Your task to perform on an android device: Show me popular videos on Youtube Image 0: 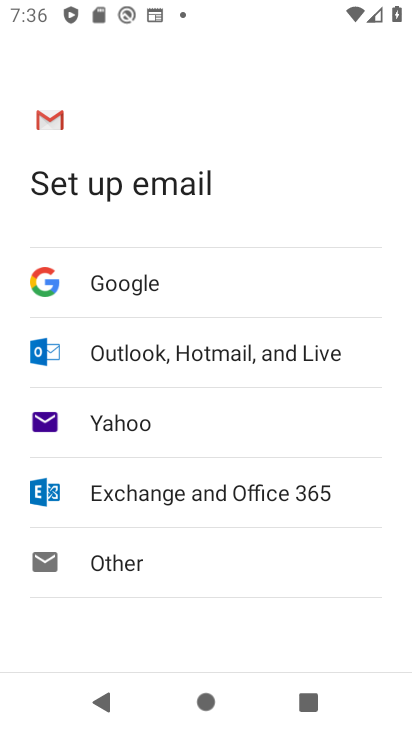
Step 0: press home button
Your task to perform on an android device: Show me popular videos on Youtube Image 1: 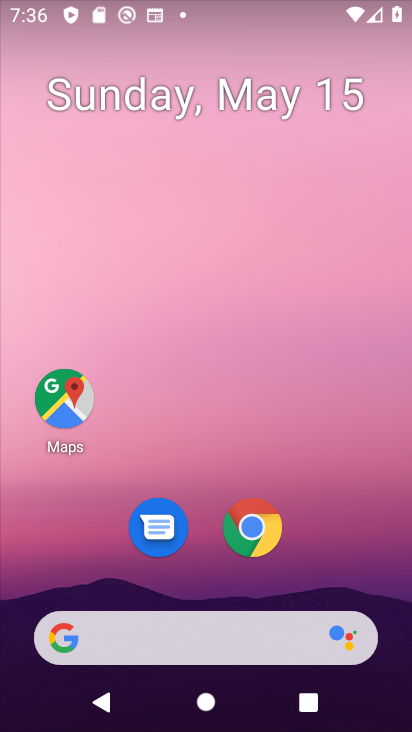
Step 1: drag from (180, 645) to (309, 124)
Your task to perform on an android device: Show me popular videos on Youtube Image 2: 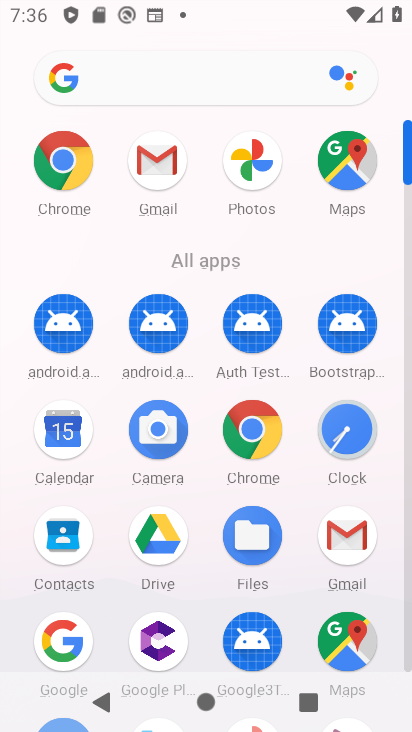
Step 2: drag from (301, 641) to (400, 133)
Your task to perform on an android device: Show me popular videos on Youtube Image 3: 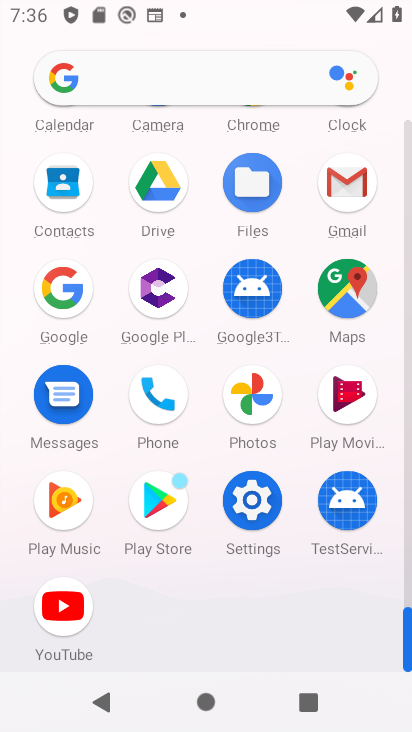
Step 3: click (70, 608)
Your task to perform on an android device: Show me popular videos on Youtube Image 4: 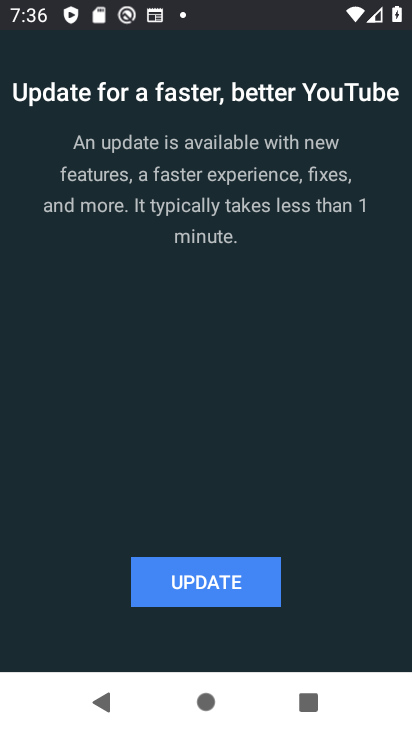
Step 4: click (172, 589)
Your task to perform on an android device: Show me popular videos on Youtube Image 5: 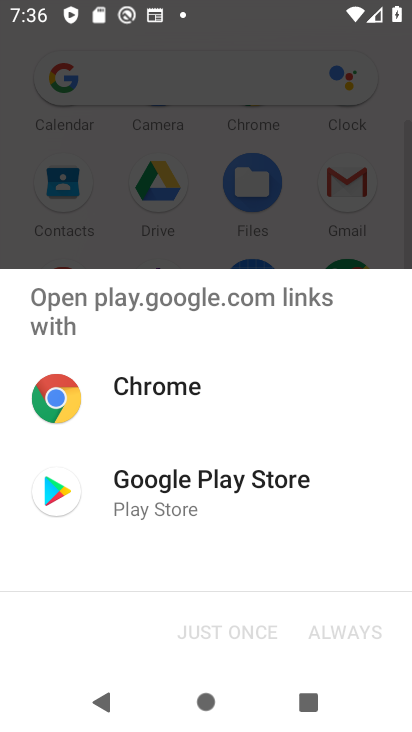
Step 5: click (152, 496)
Your task to perform on an android device: Show me popular videos on Youtube Image 6: 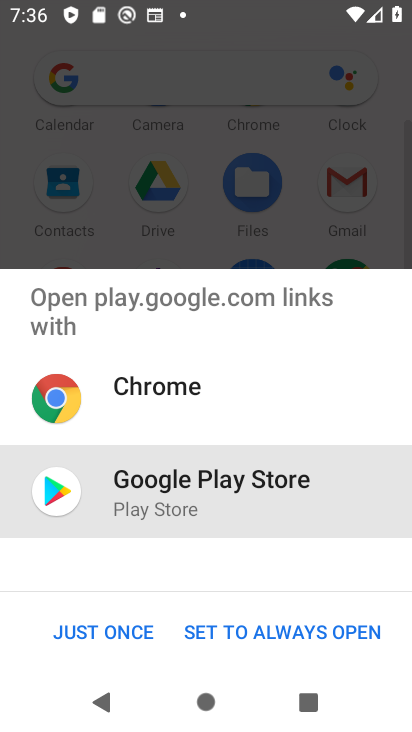
Step 6: click (100, 622)
Your task to perform on an android device: Show me popular videos on Youtube Image 7: 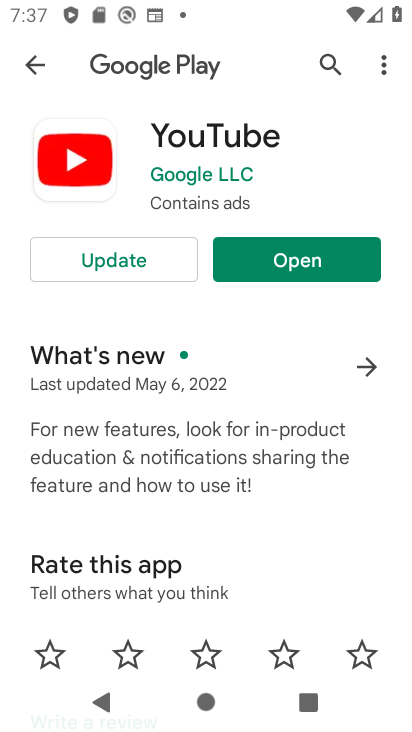
Step 7: click (112, 256)
Your task to perform on an android device: Show me popular videos on Youtube Image 8: 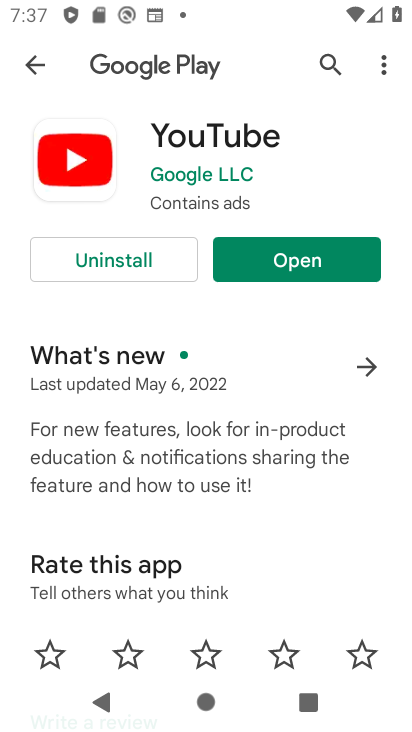
Step 8: click (323, 259)
Your task to perform on an android device: Show me popular videos on Youtube Image 9: 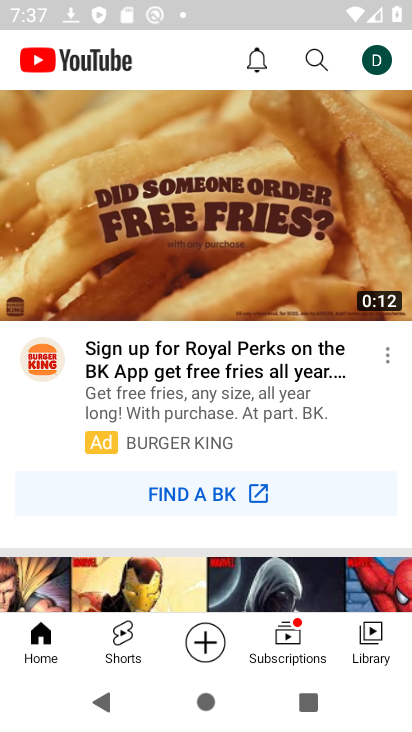
Step 9: task complete